Your task to perform on an android device: check data usage Image 0: 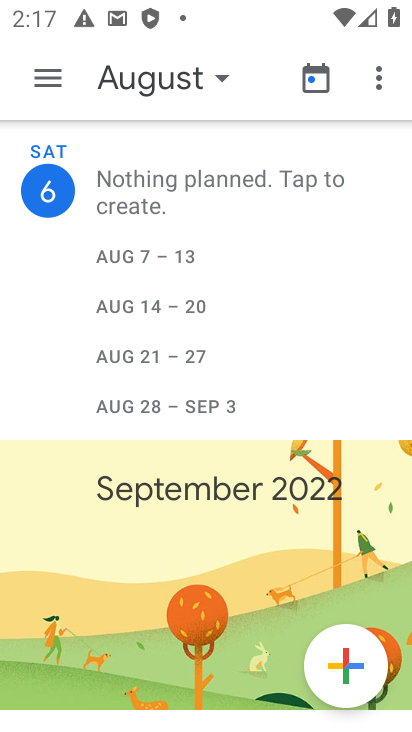
Step 0: press home button
Your task to perform on an android device: check data usage Image 1: 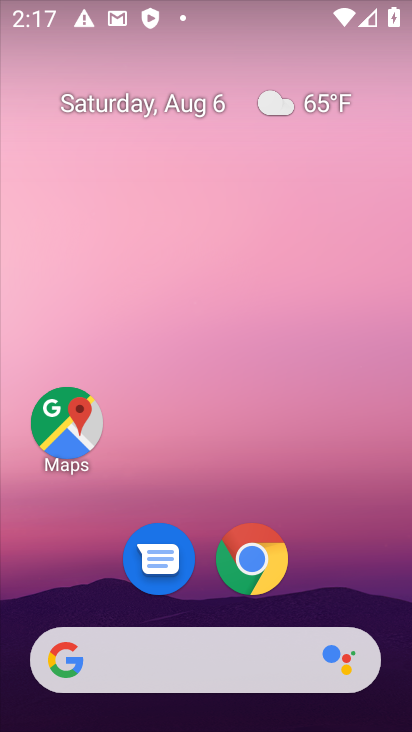
Step 1: drag from (209, 499) to (239, 148)
Your task to perform on an android device: check data usage Image 2: 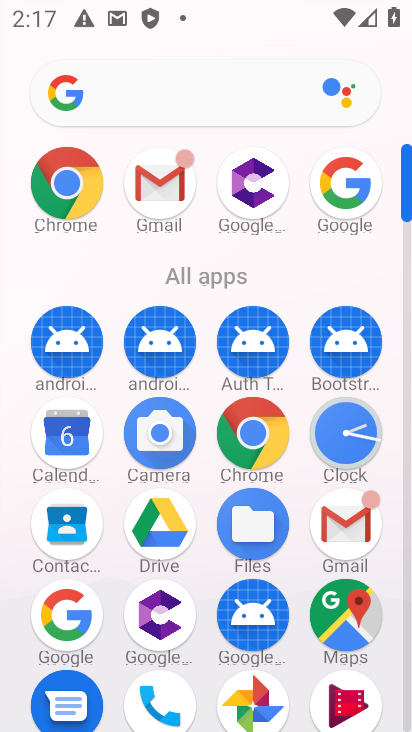
Step 2: drag from (205, 489) to (200, 189)
Your task to perform on an android device: check data usage Image 3: 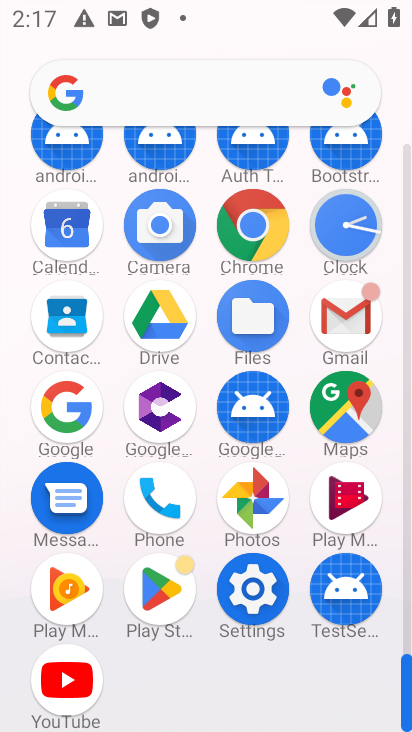
Step 3: click (250, 578)
Your task to perform on an android device: check data usage Image 4: 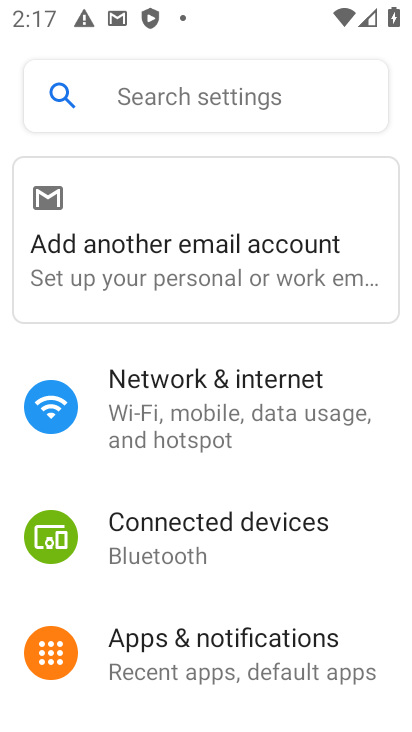
Step 4: drag from (285, 629) to (262, 292)
Your task to perform on an android device: check data usage Image 5: 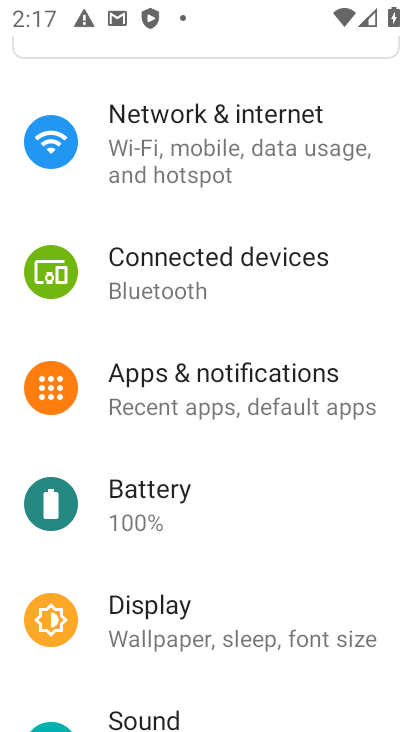
Step 5: click (258, 135)
Your task to perform on an android device: check data usage Image 6: 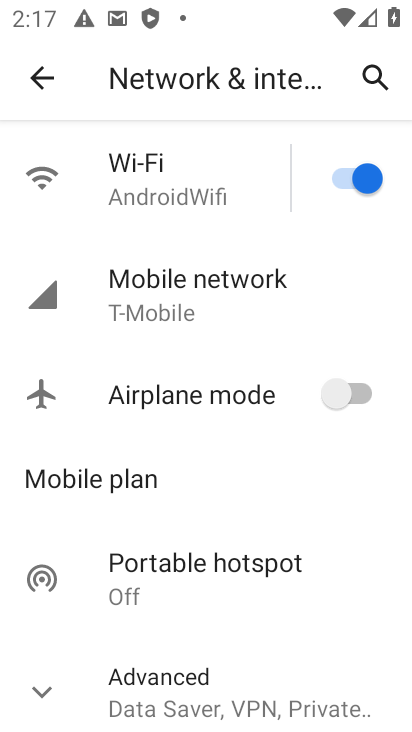
Step 6: click (247, 291)
Your task to perform on an android device: check data usage Image 7: 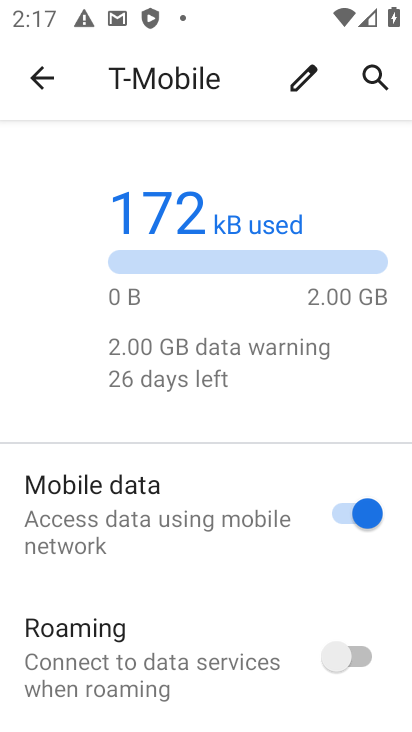
Step 7: drag from (220, 642) to (230, 353)
Your task to perform on an android device: check data usage Image 8: 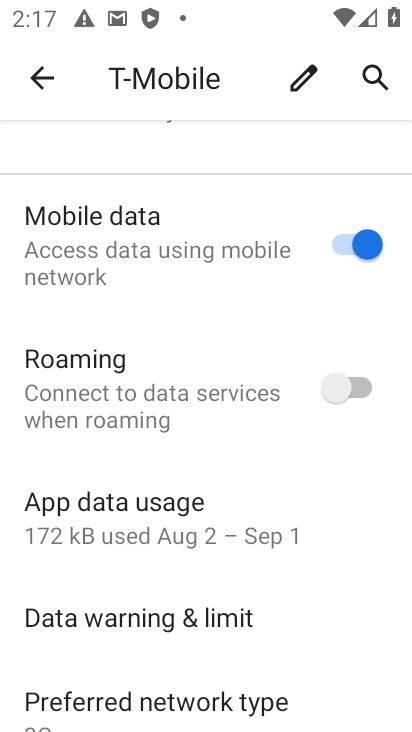
Step 8: click (195, 520)
Your task to perform on an android device: check data usage Image 9: 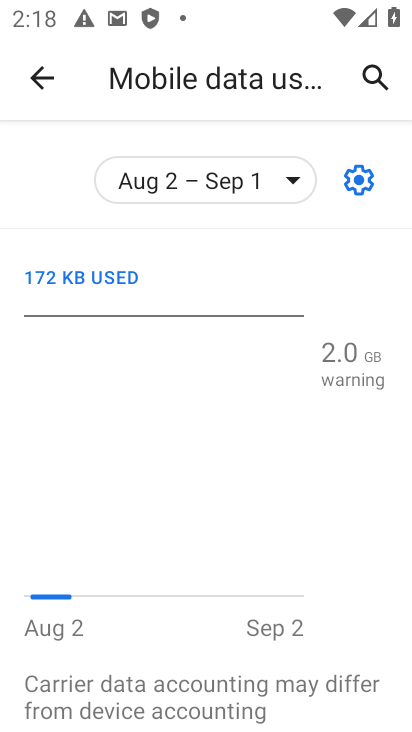
Step 9: task complete